Your task to perform on an android device: visit the assistant section in the google photos Image 0: 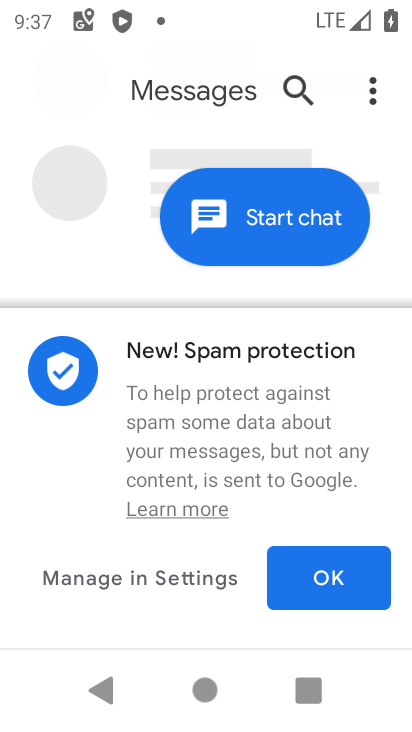
Step 0: press home button
Your task to perform on an android device: visit the assistant section in the google photos Image 1: 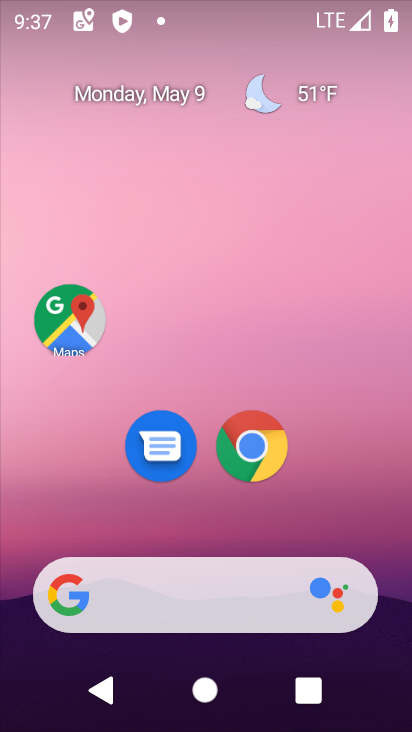
Step 1: drag from (250, 492) to (247, 73)
Your task to perform on an android device: visit the assistant section in the google photos Image 2: 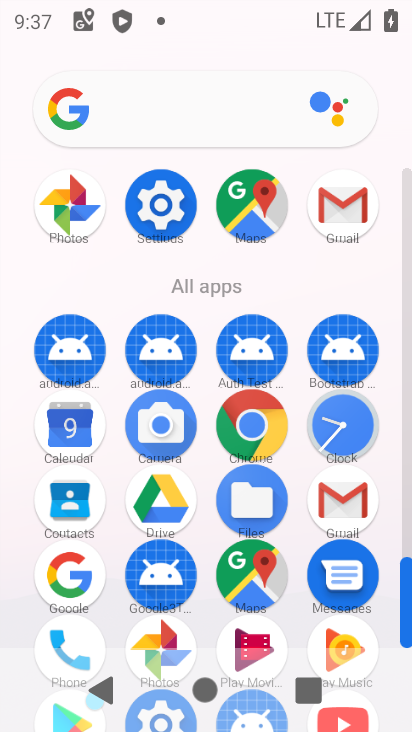
Step 2: click (55, 203)
Your task to perform on an android device: visit the assistant section in the google photos Image 3: 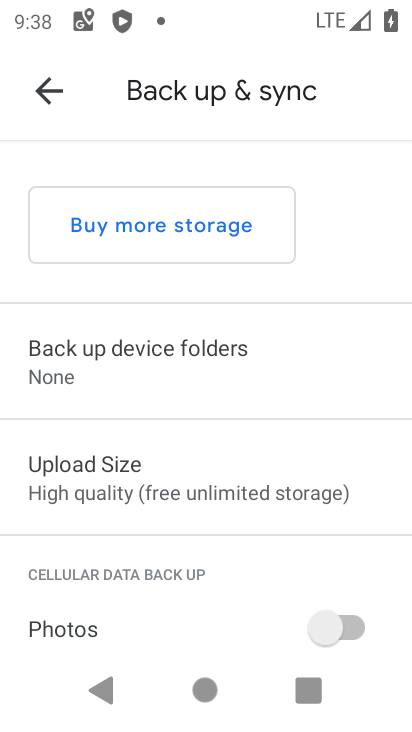
Step 3: click (44, 94)
Your task to perform on an android device: visit the assistant section in the google photos Image 4: 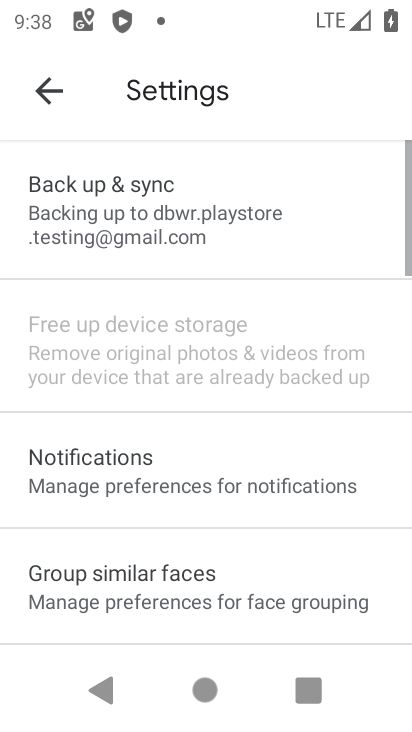
Step 4: click (44, 94)
Your task to perform on an android device: visit the assistant section in the google photos Image 5: 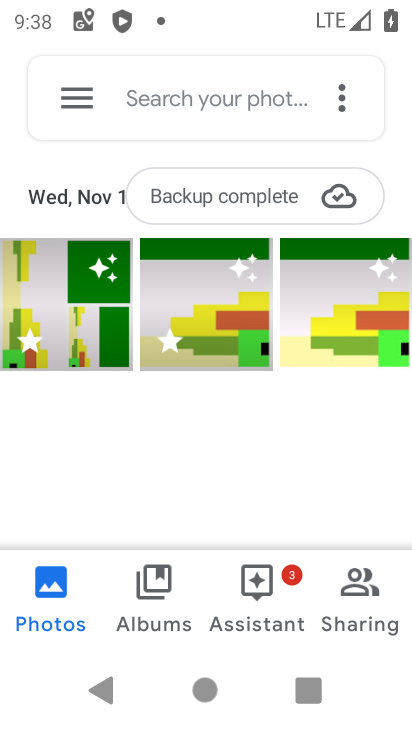
Step 5: click (251, 598)
Your task to perform on an android device: visit the assistant section in the google photos Image 6: 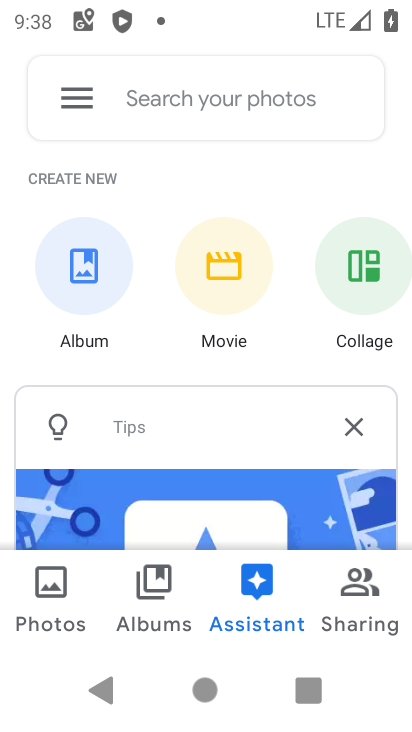
Step 6: task complete